Your task to perform on an android device: Go to Reddit.com Image 0: 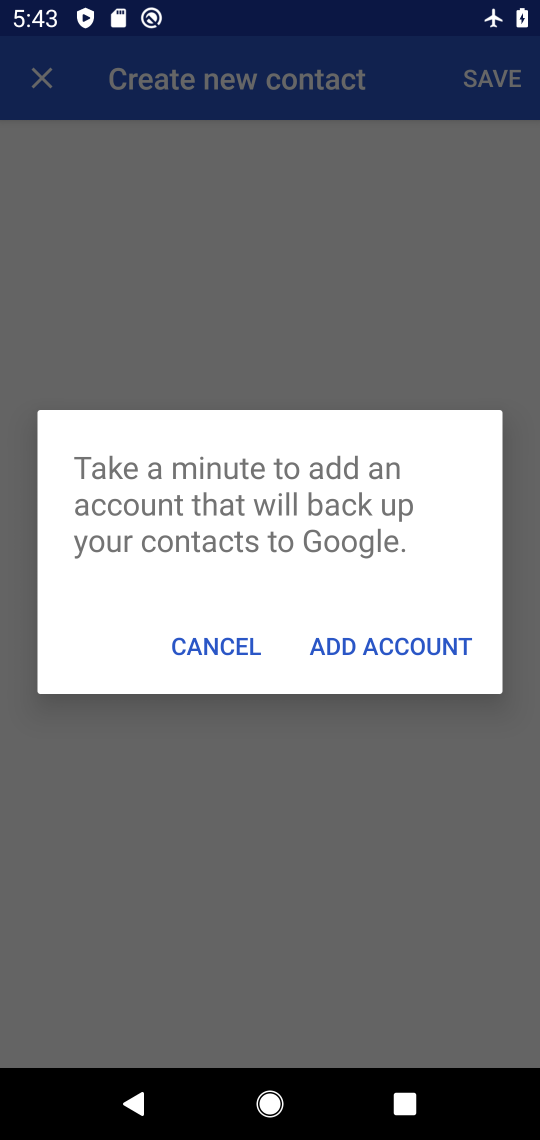
Step 0: press home button
Your task to perform on an android device: Go to Reddit.com Image 1: 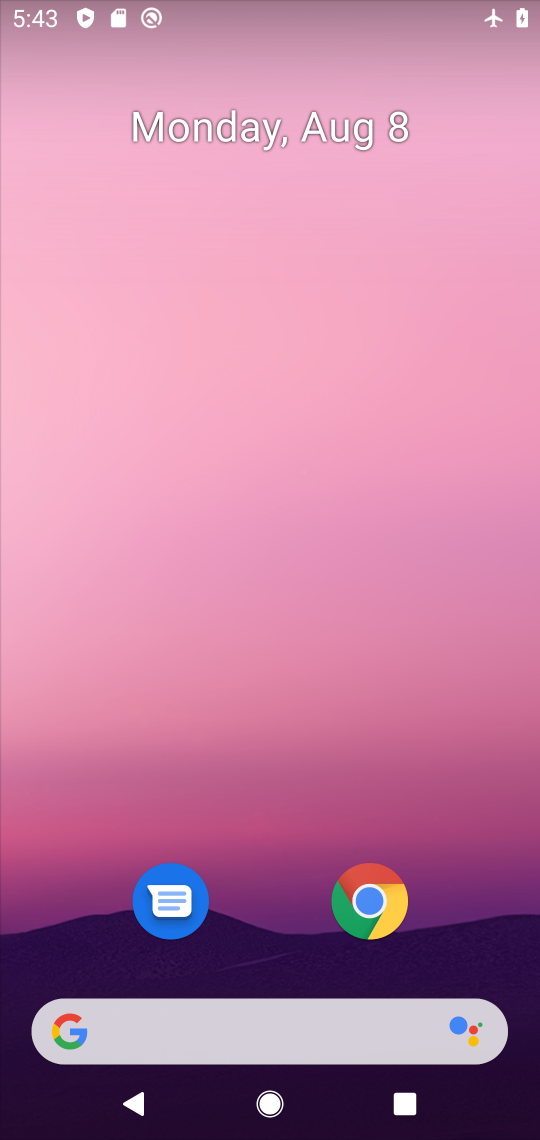
Step 1: click (384, 917)
Your task to perform on an android device: Go to Reddit.com Image 2: 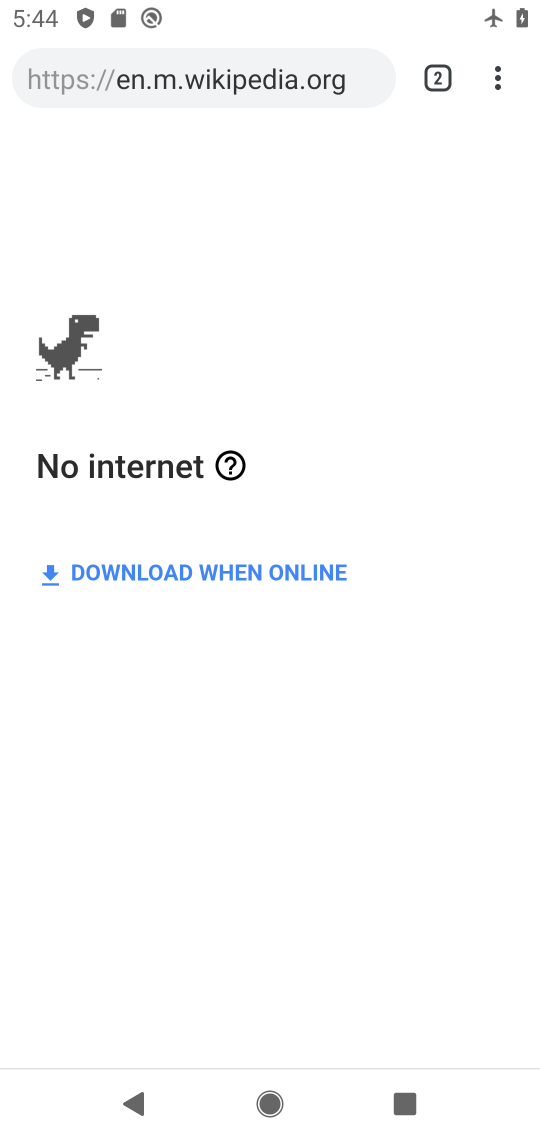
Step 2: click (277, 83)
Your task to perform on an android device: Go to Reddit.com Image 3: 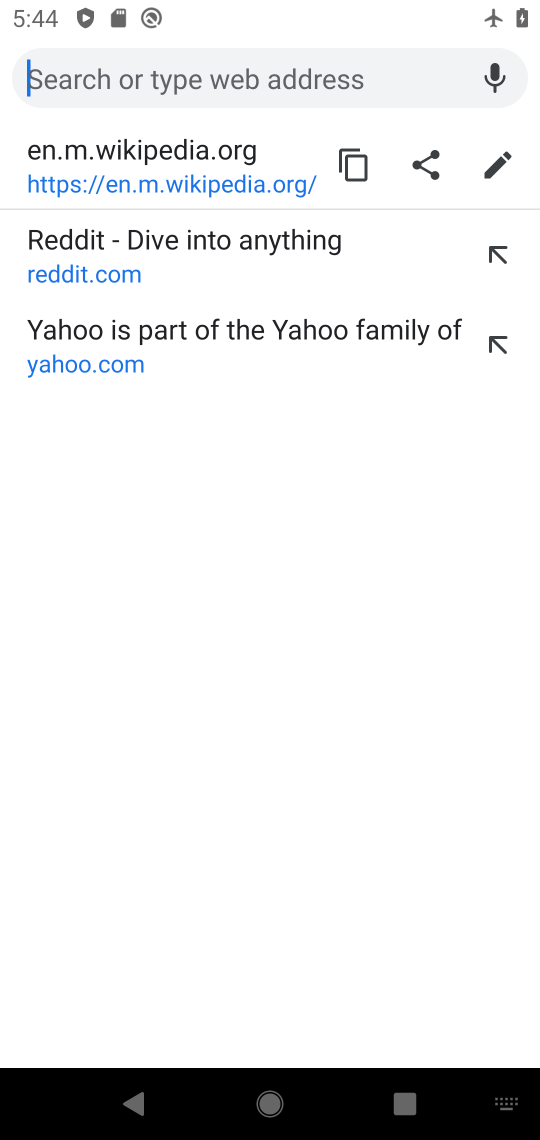
Step 3: click (177, 246)
Your task to perform on an android device: Go to Reddit.com Image 4: 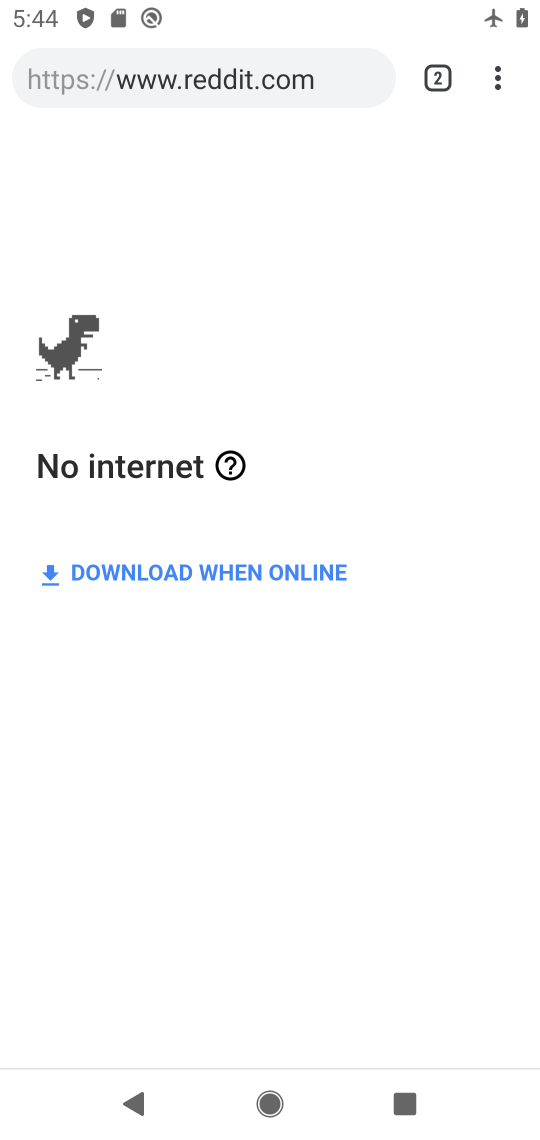
Step 4: task complete